Your task to perform on an android device: Go to Amazon Image 0: 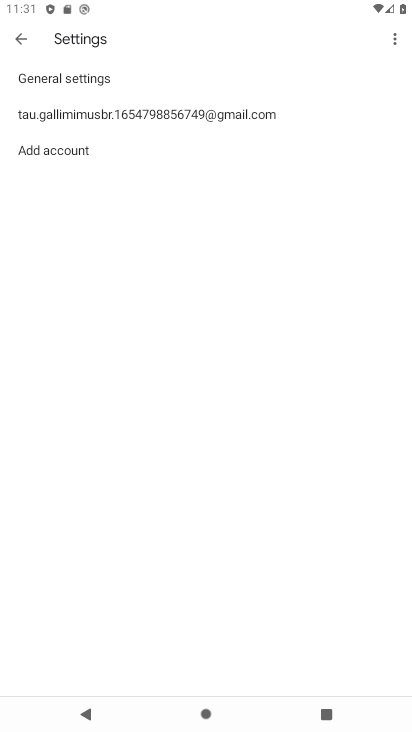
Step 0: press home button
Your task to perform on an android device: Go to Amazon Image 1: 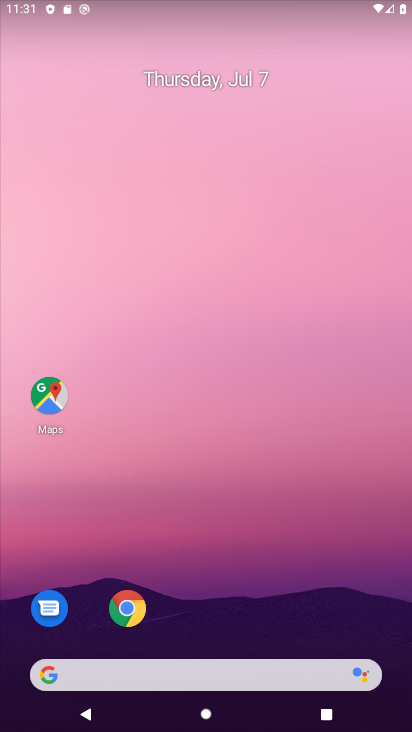
Step 1: click (182, 667)
Your task to perform on an android device: Go to Amazon Image 2: 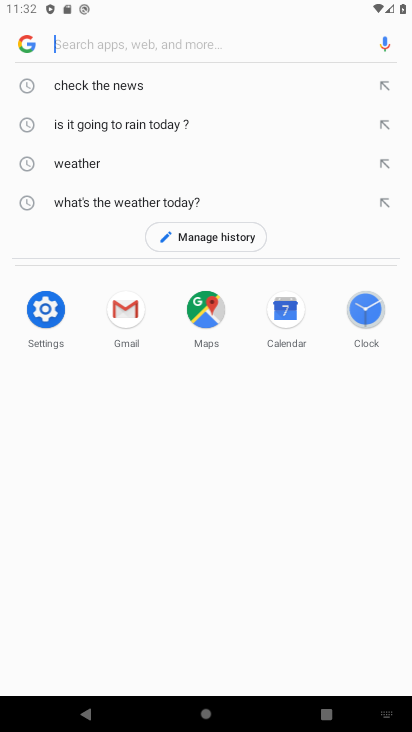
Step 2: type "amazon.com"
Your task to perform on an android device: Go to Amazon Image 3: 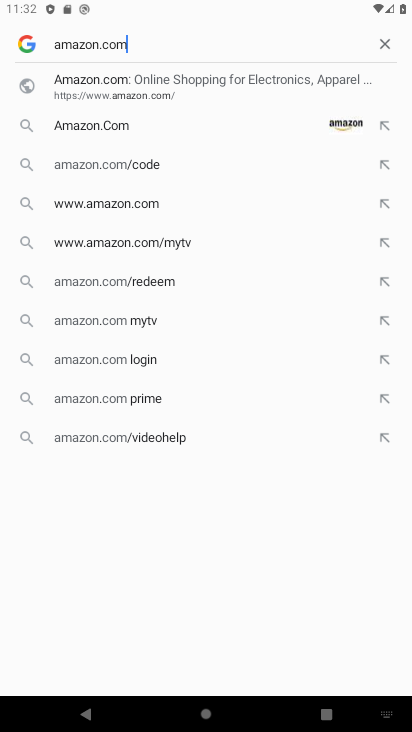
Step 3: click (178, 84)
Your task to perform on an android device: Go to Amazon Image 4: 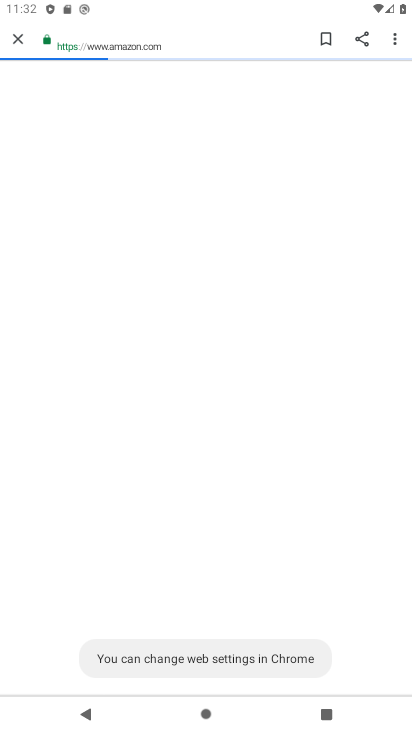
Step 4: task complete